Your task to perform on an android device: Open Google Maps Image 0: 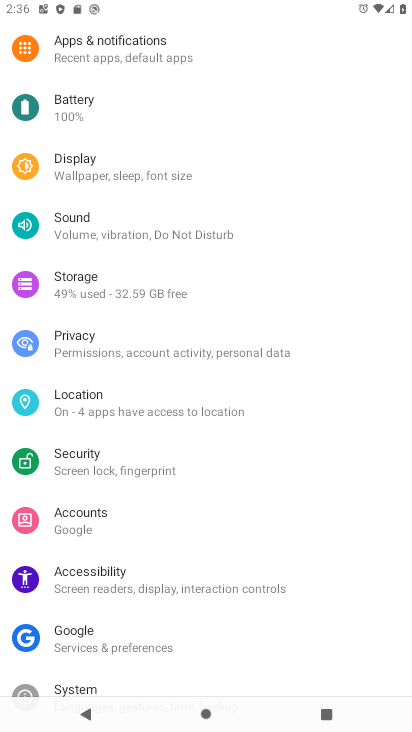
Step 0: press home button
Your task to perform on an android device: Open Google Maps Image 1: 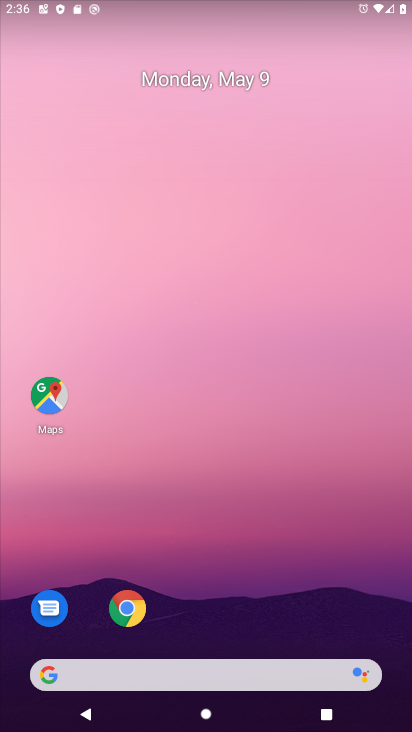
Step 1: click (59, 391)
Your task to perform on an android device: Open Google Maps Image 2: 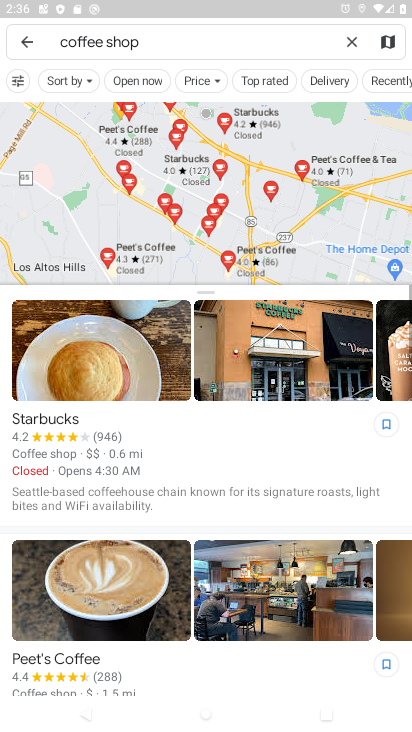
Step 2: task complete